Your task to perform on an android device: install app "Skype" Image 0: 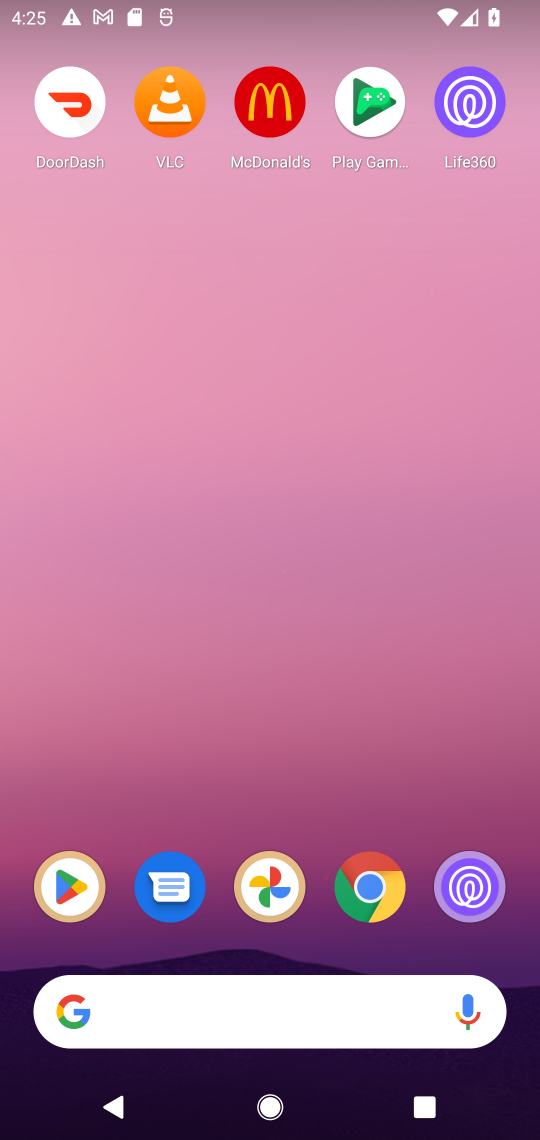
Step 0: click (85, 888)
Your task to perform on an android device: install app "Skype" Image 1: 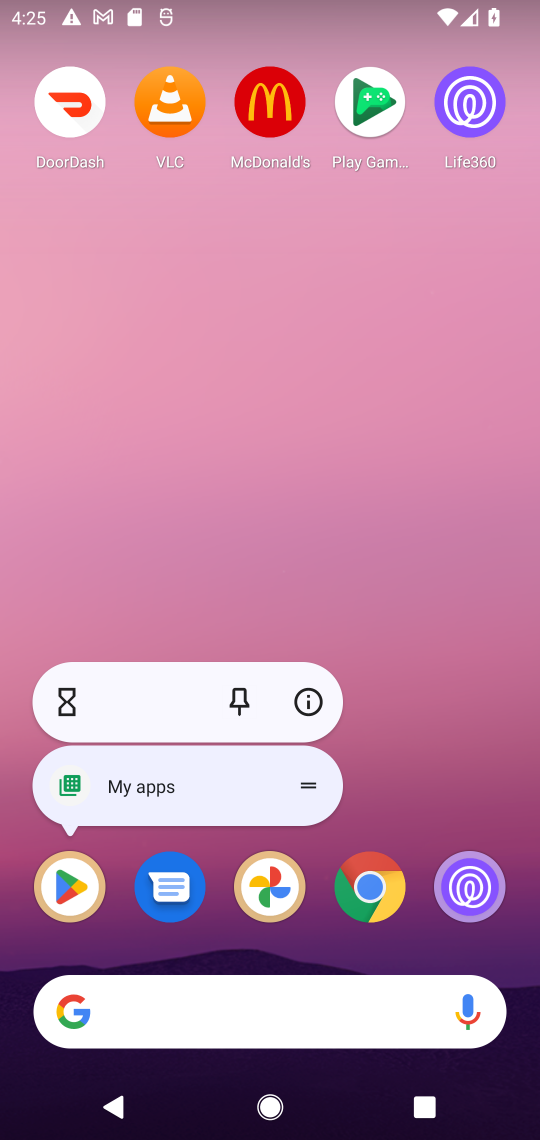
Step 1: click (35, 903)
Your task to perform on an android device: install app "Skype" Image 2: 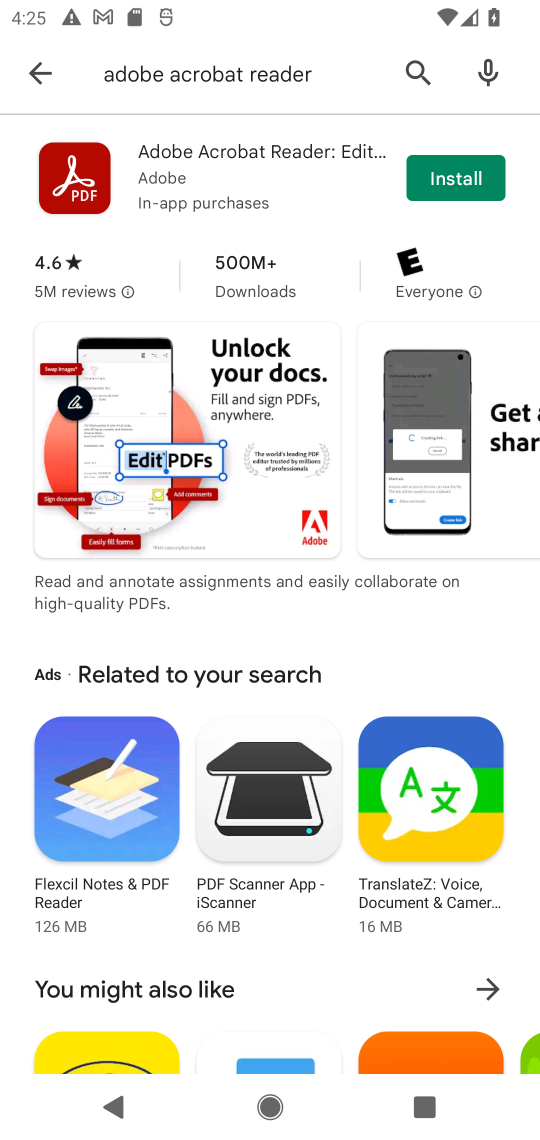
Step 2: click (49, 72)
Your task to perform on an android device: install app "Skype" Image 3: 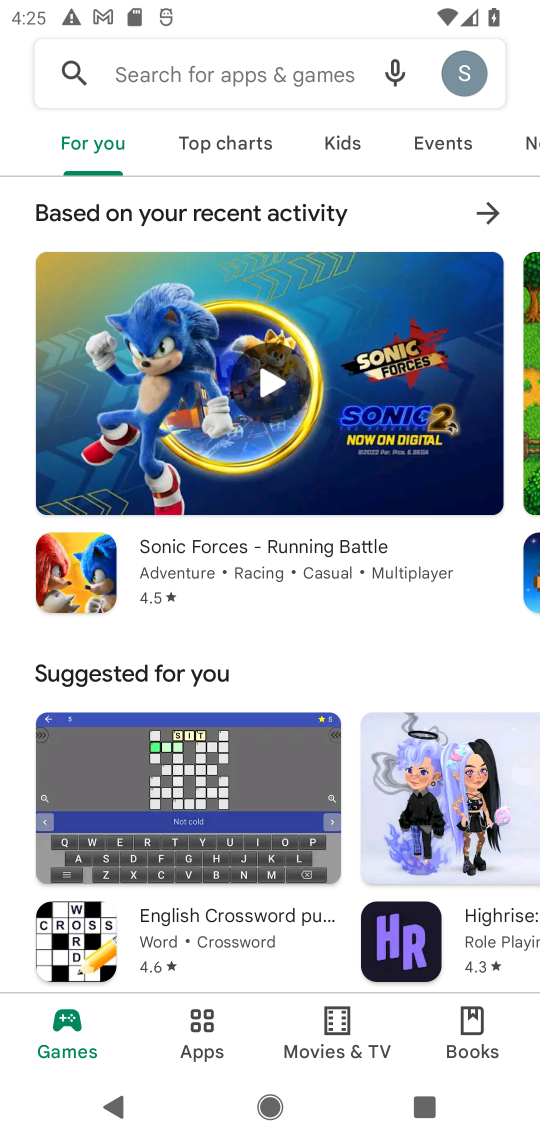
Step 3: click (229, 71)
Your task to perform on an android device: install app "Skype" Image 4: 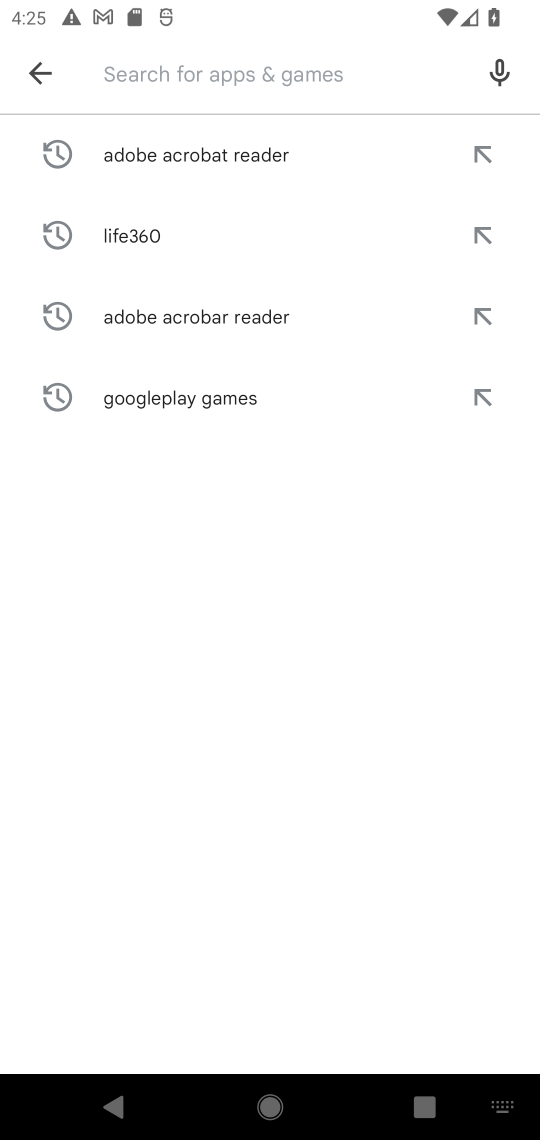
Step 4: type "skype"
Your task to perform on an android device: install app "Skype" Image 5: 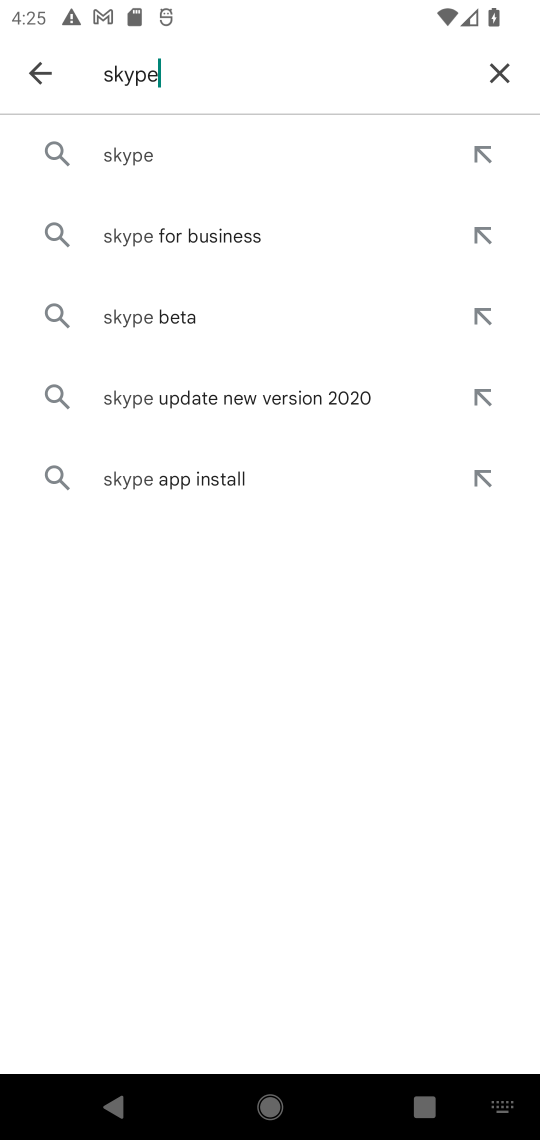
Step 5: click (148, 169)
Your task to perform on an android device: install app "Skype" Image 6: 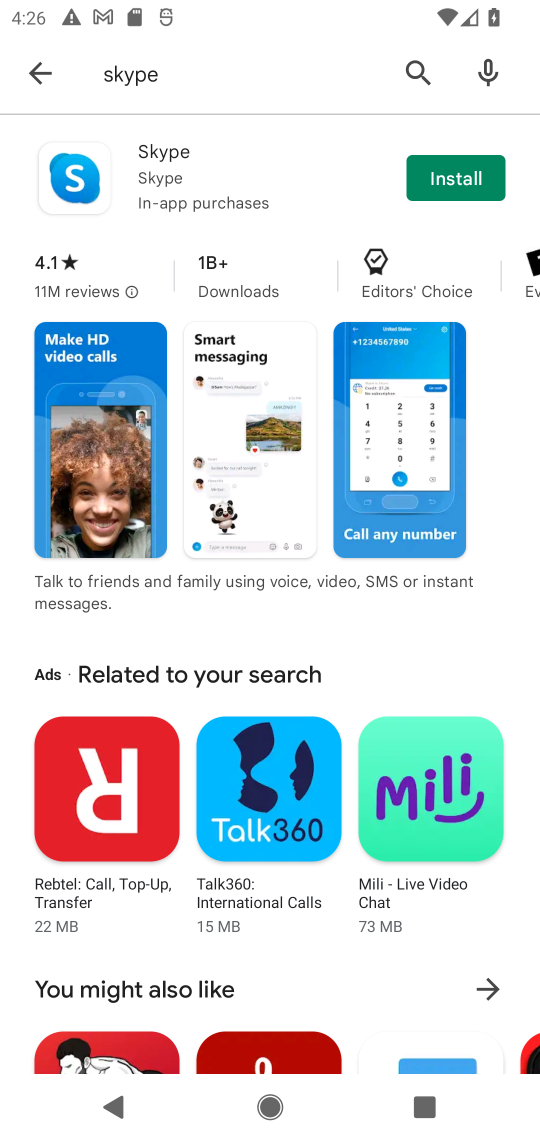
Step 6: click (473, 175)
Your task to perform on an android device: install app "Skype" Image 7: 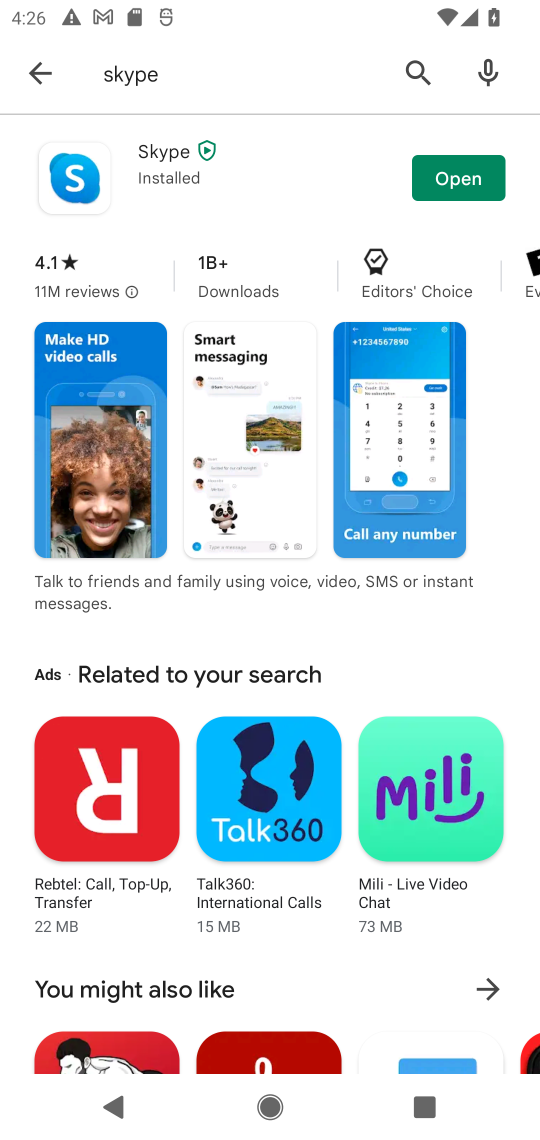
Step 7: task complete